Your task to perform on an android device: check google app version Image 0: 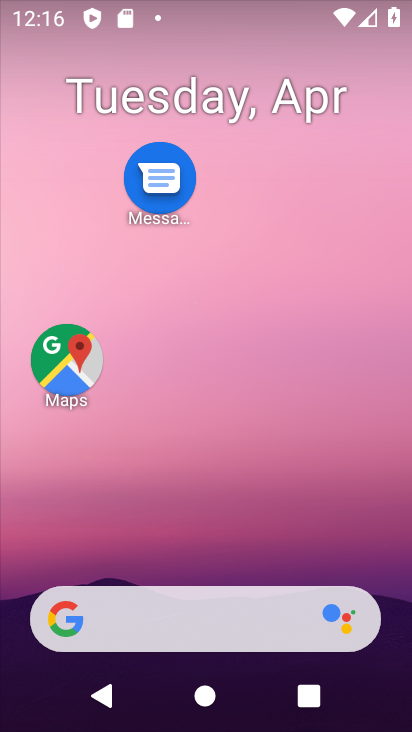
Step 0: drag from (204, 722) to (180, 80)
Your task to perform on an android device: check google app version Image 1: 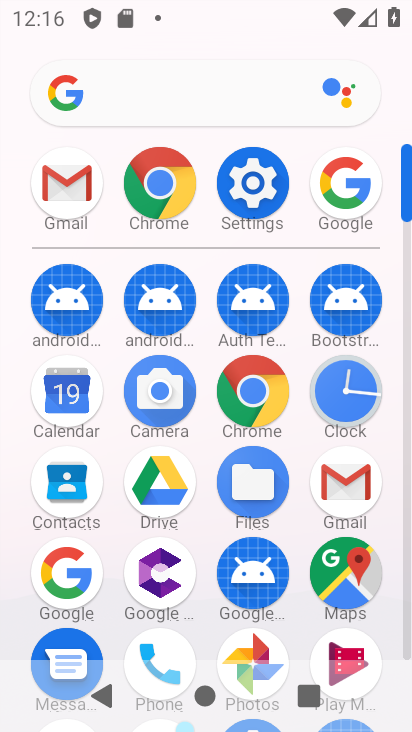
Step 1: click (70, 572)
Your task to perform on an android device: check google app version Image 2: 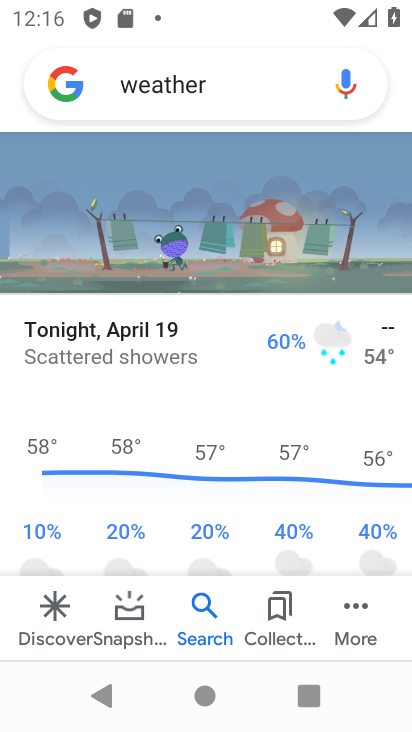
Step 2: click (355, 601)
Your task to perform on an android device: check google app version Image 3: 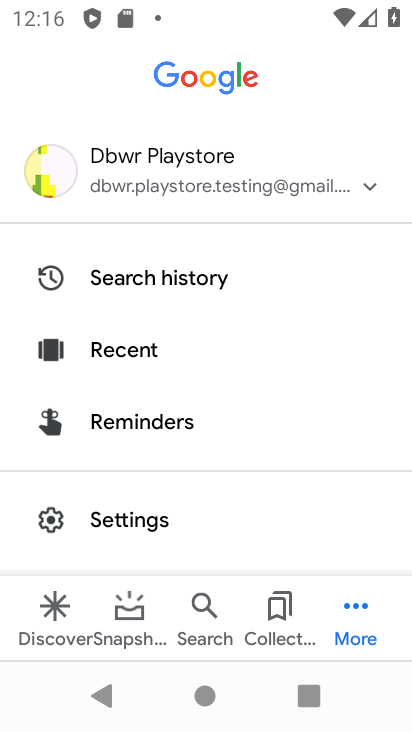
Step 3: click (134, 523)
Your task to perform on an android device: check google app version Image 4: 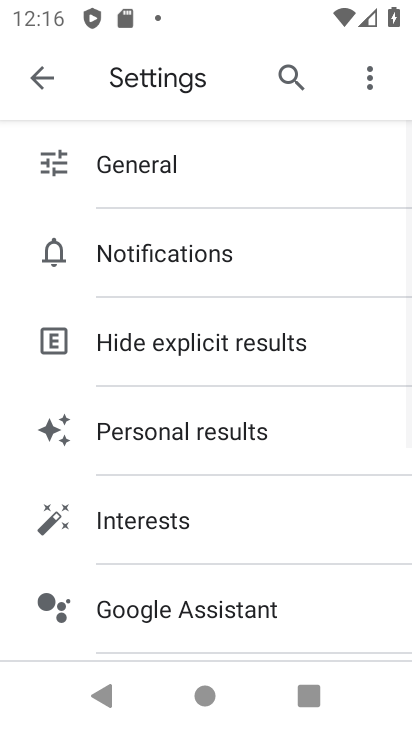
Step 4: drag from (184, 569) to (188, 93)
Your task to perform on an android device: check google app version Image 5: 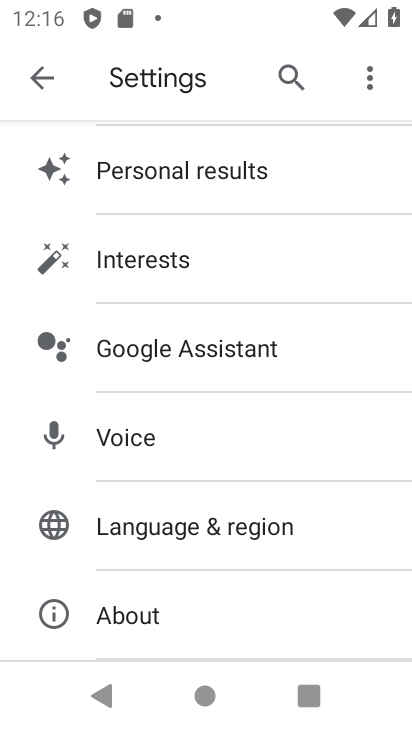
Step 5: click (145, 610)
Your task to perform on an android device: check google app version Image 6: 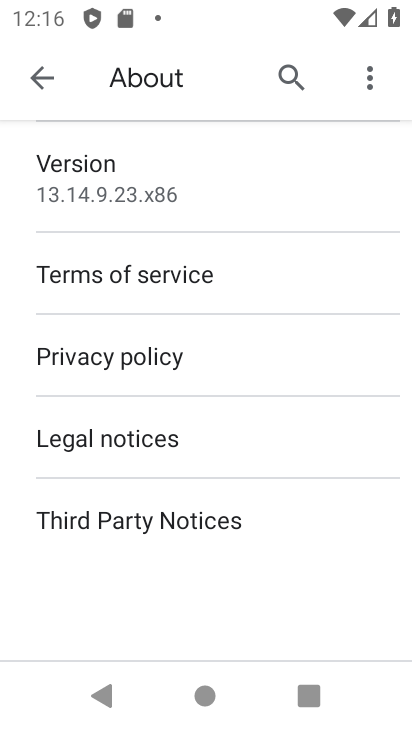
Step 6: task complete